Your task to perform on an android device: change the clock display to digital Image 0: 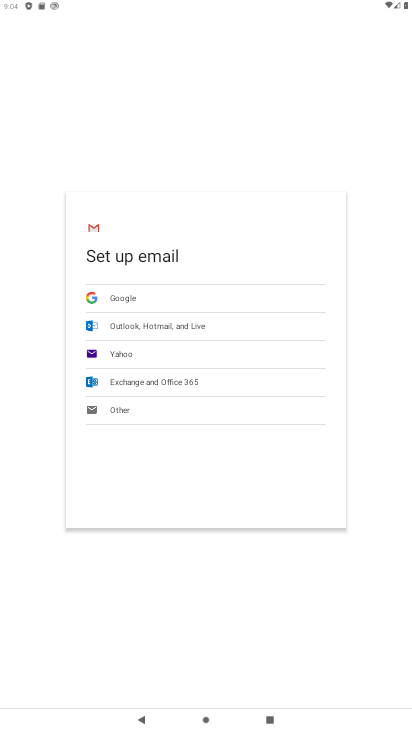
Step 0: press home button
Your task to perform on an android device: change the clock display to digital Image 1: 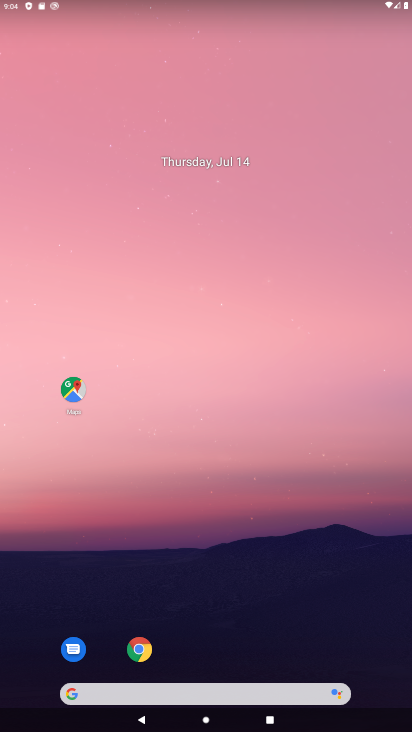
Step 1: drag from (253, 611) to (246, 214)
Your task to perform on an android device: change the clock display to digital Image 2: 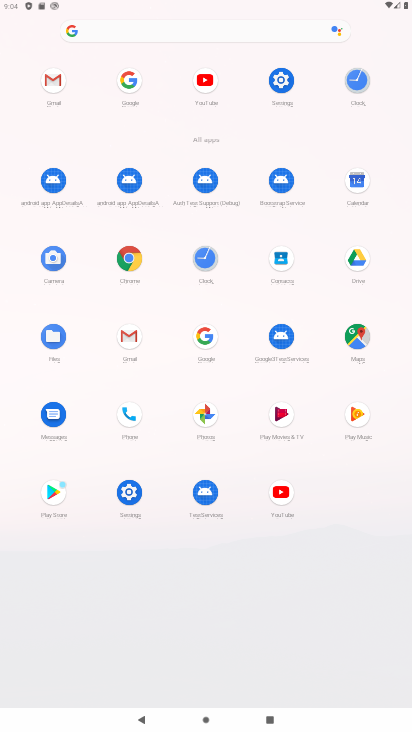
Step 2: click (207, 264)
Your task to perform on an android device: change the clock display to digital Image 3: 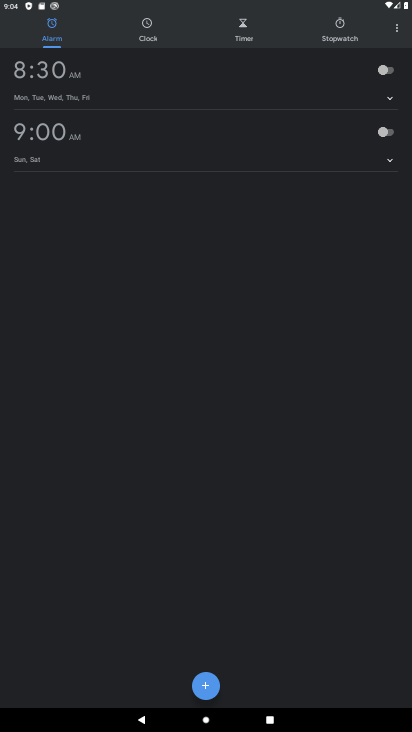
Step 3: click (393, 26)
Your task to perform on an android device: change the clock display to digital Image 4: 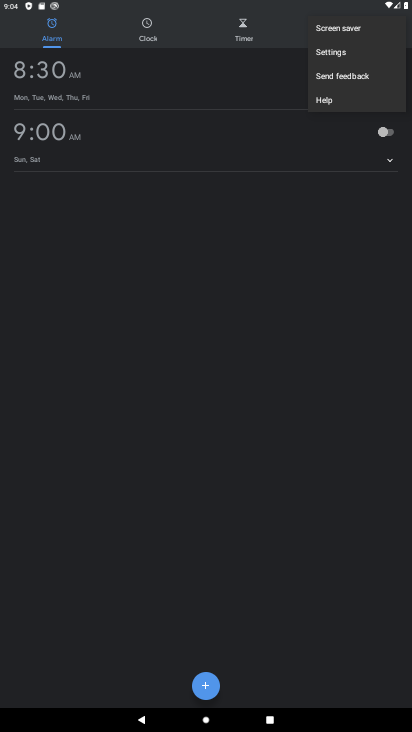
Step 4: click (342, 55)
Your task to perform on an android device: change the clock display to digital Image 5: 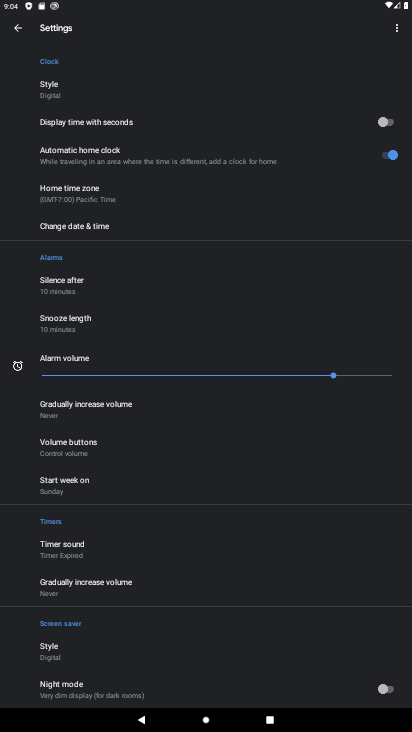
Step 5: click (42, 91)
Your task to perform on an android device: change the clock display to digital Image 6: 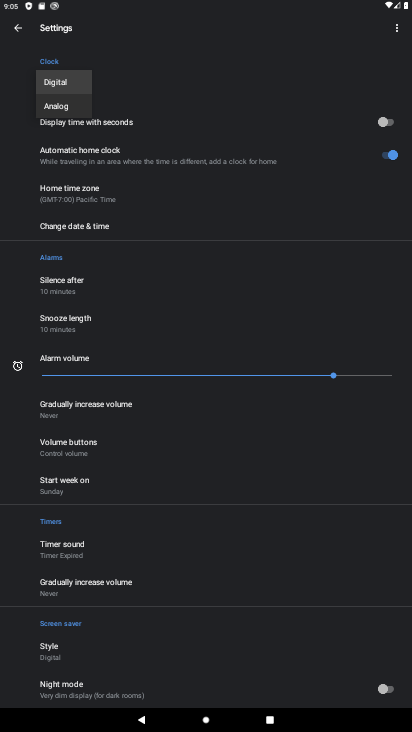
Step 6: task complete